Your task to perform on an android device: Open Google Chrome and click the shortcut for Amazon.com Image 0: 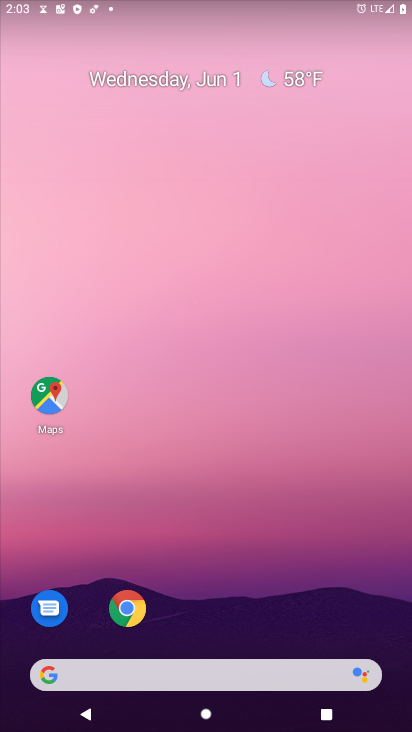
Step 0: drag from (250, 574) to (245, 160)
Your task to perform on an android device: Open Google Chrome and click the shortcut for Amazon.com Image 1: 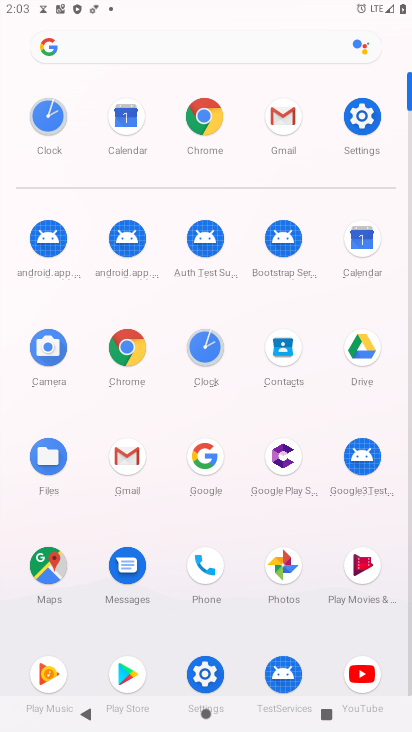
Step 1: click (195, 125)
Your task to perform on an android device: Open Google Chrome and click the shortcut for Amazon.com Image 2: 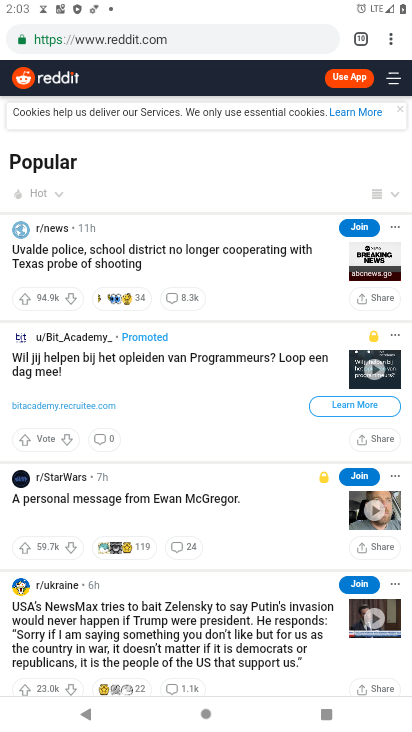
Step 2: click (371, 34)
Your task to perform on an android device: Open Google Chrome and click the shortcut for Amazon.com Image 3: 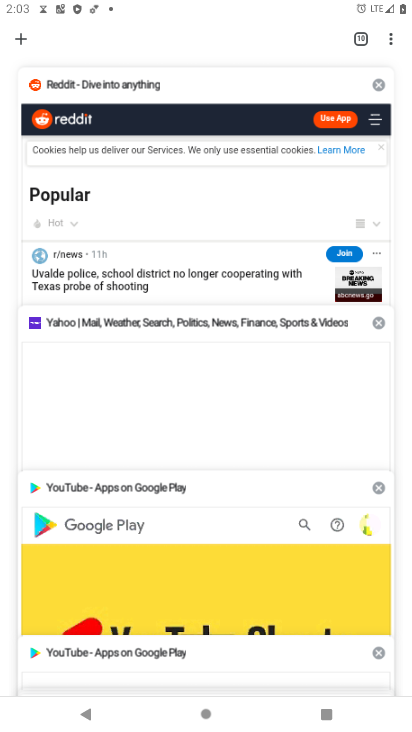
Step 3: drag from (216, 151) to (250, 505)
Your task to perform on an android device: Open Google Chrome and click the shortcut for Amazon.com Image 4: 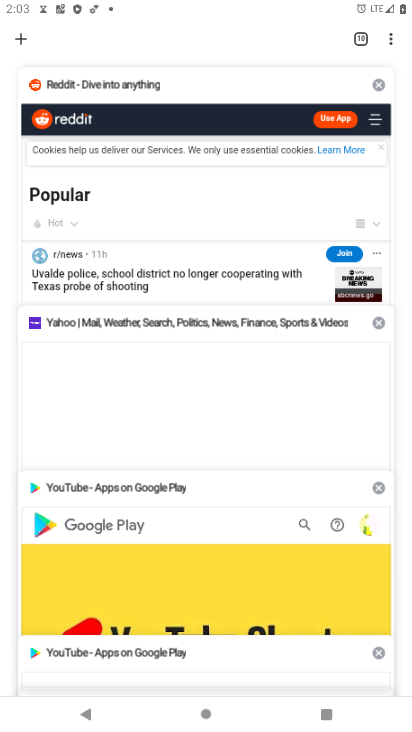
Step 4: drag from (233, 373) to (233, 105)
Your task to perform on an android device: Open Google Chrome and click the shortcut for Amazon.com Image 5: 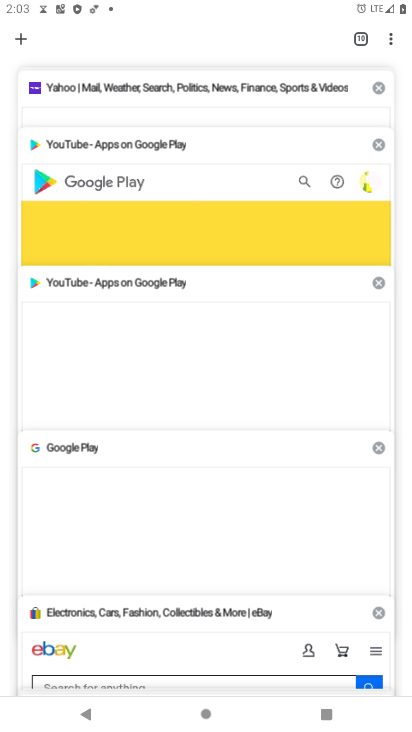
Step 5: drag from (268, 396) to (301, 87)
Your task to perform on an android device: Open Google Chrome and click the shortcut for Amazon.com Image 6: 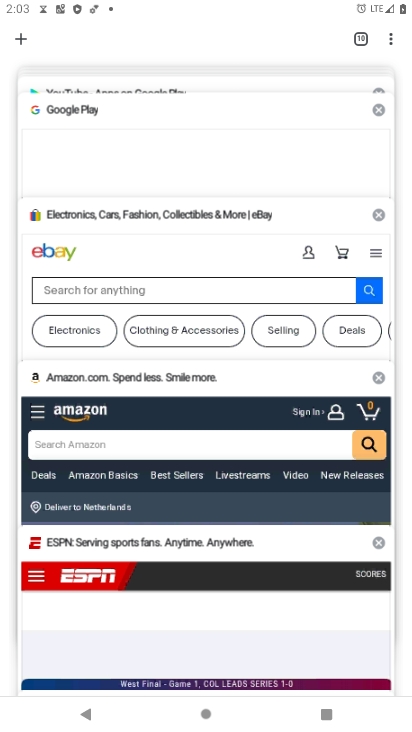
Step 6: drag from (272, 410) to (256, 128)
Your task to perform on an android device: Open Google Chrome and click the shortcut for Amazon.com Image 7: 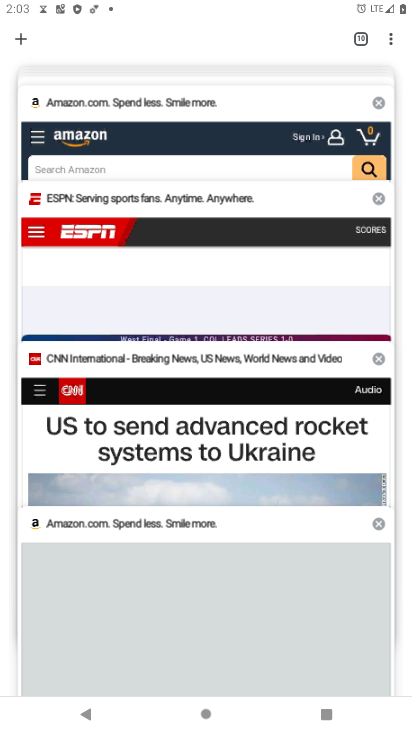
Step 7: click (291, 158)
Your task to perform on an android device: Open Google Chrome and click the shortcut for Amazon.com Image 8: 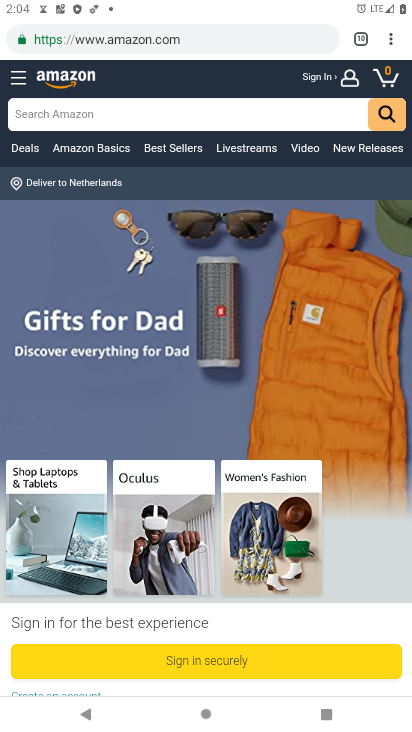
Step 8: task complete